Your task to perform on an android device: delete browsing data in the chrome app Image 0: 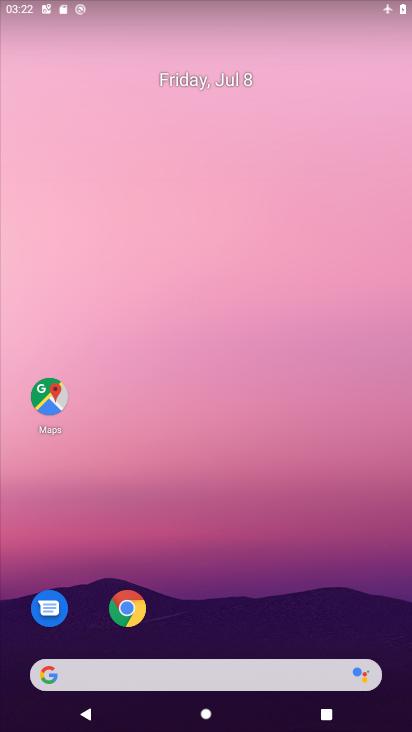
Step 0: drag from (259, 601) to (259, 154)
Your task to perform on an android device: delete browsing data in the chrome app Image 1: 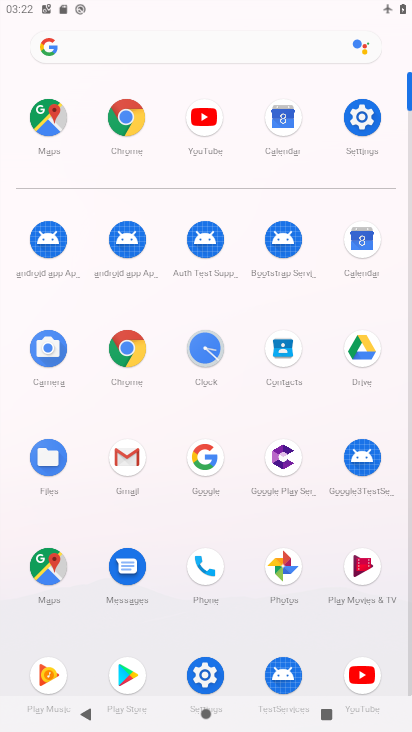
Step 1: click (125, 113)
Your task to perform on an android device: delete browsing data in the chrome app Image 2: 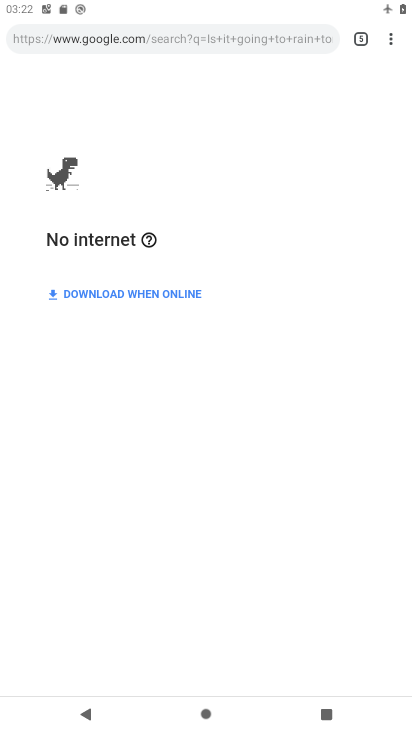
Step 2: click (398, 26)
Your task to perform on an android device: delete browsing data in the chrome app Image 3: 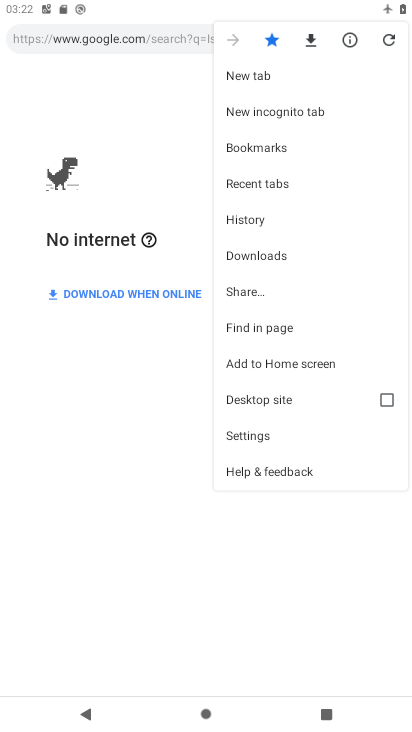
Step 3: click (285, 430)
Your task to perform on an android device: delete browsing data in the chrome app Image 4: 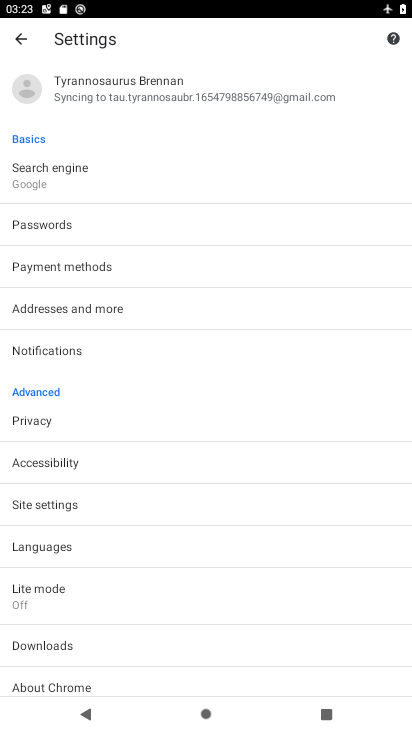
Step 4: click (83, 416)
Your task to perform on an android device: delete browsing data in the chrome app Image 5: 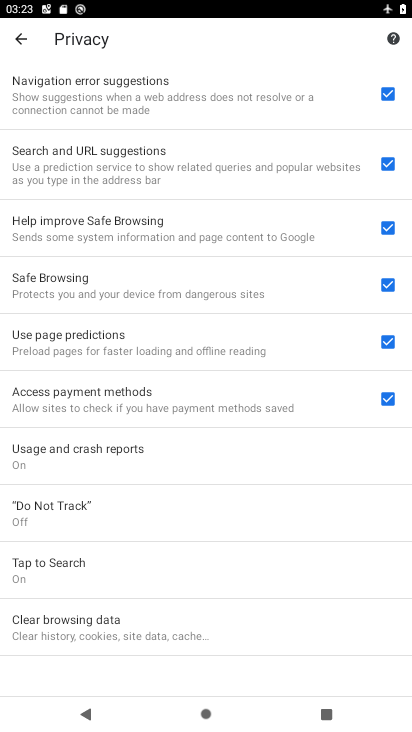
Step 5: task complete